Your task to perform on an android device: allow cookies in the chrome app Image 0: 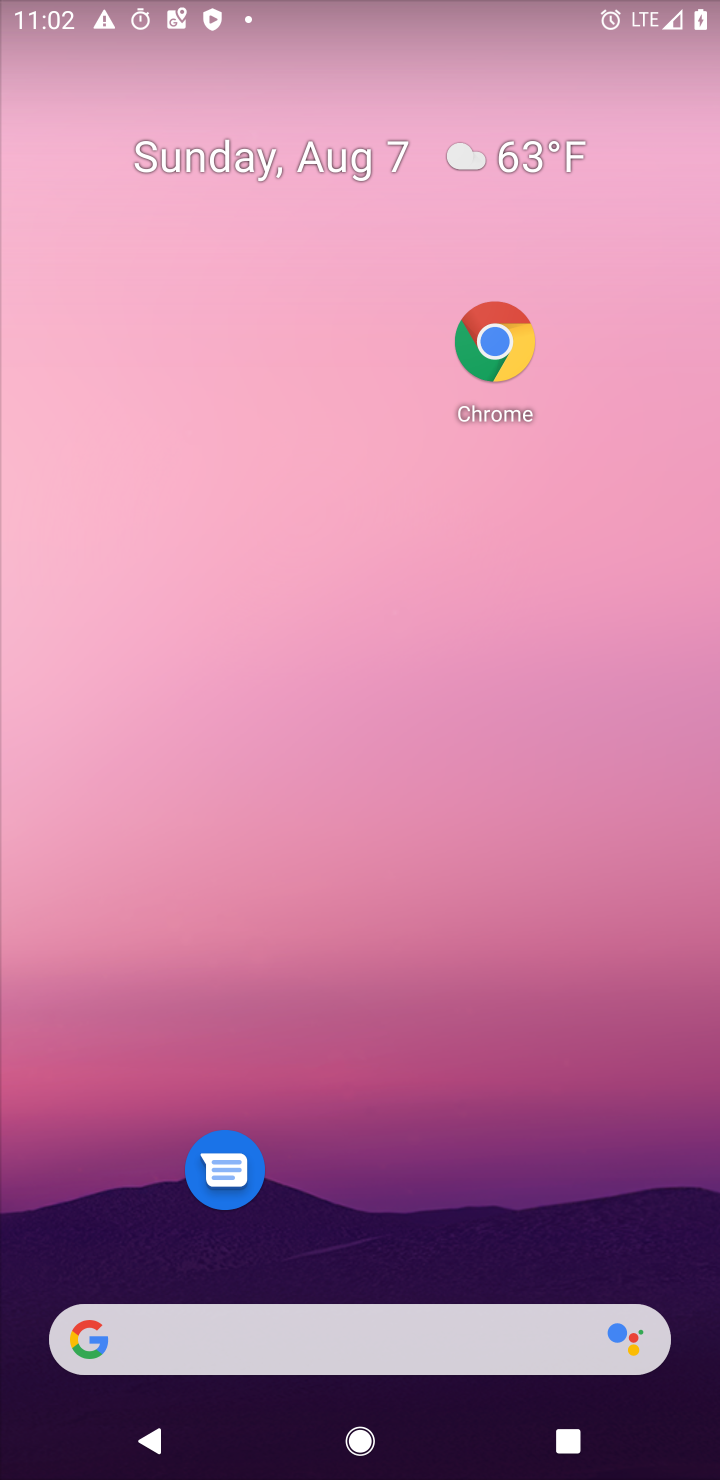
Step 0: drag from (406, 1309) to (403, 10)
Your task to perform on an android device: allow cookies in the chrome app Image 1: 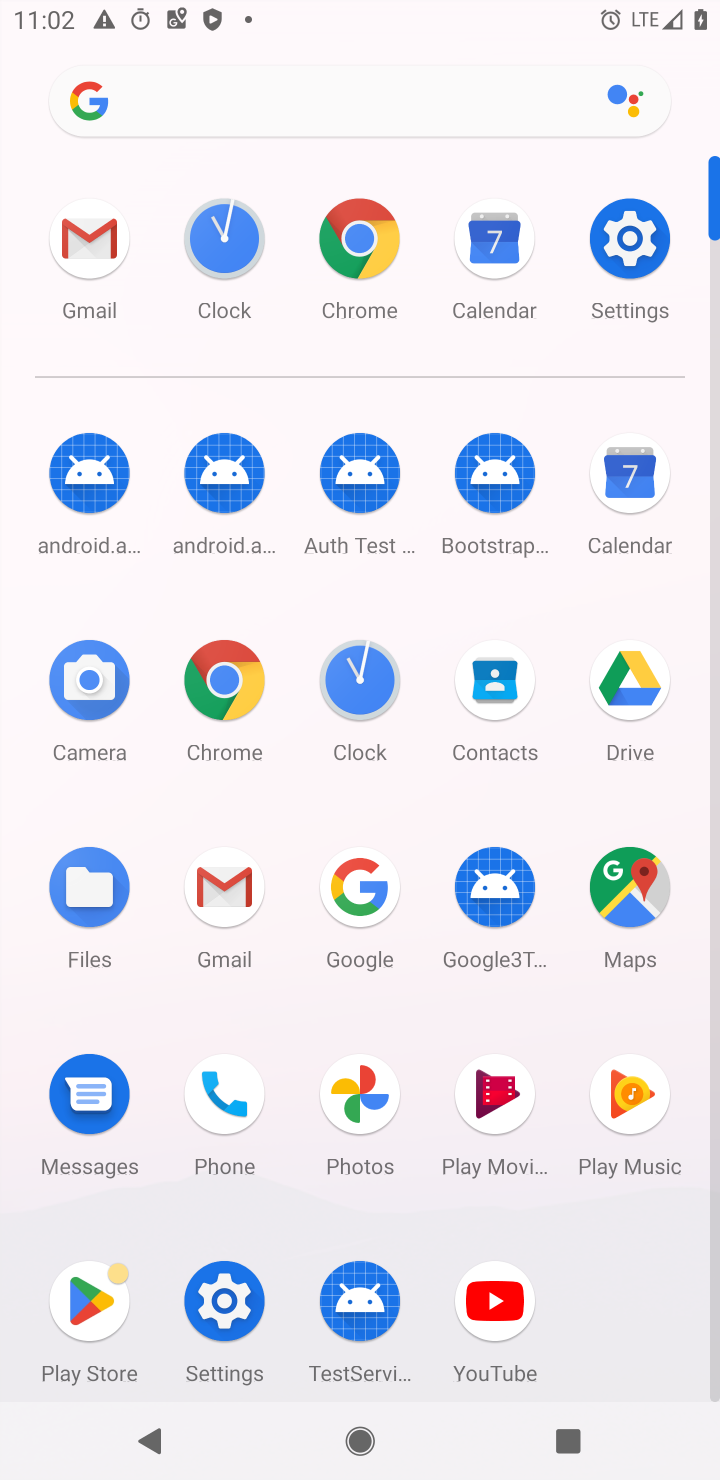
Step 1: click (213, 664)
Your task to perform on an android device: allow cookies in the chrome app Image 2: 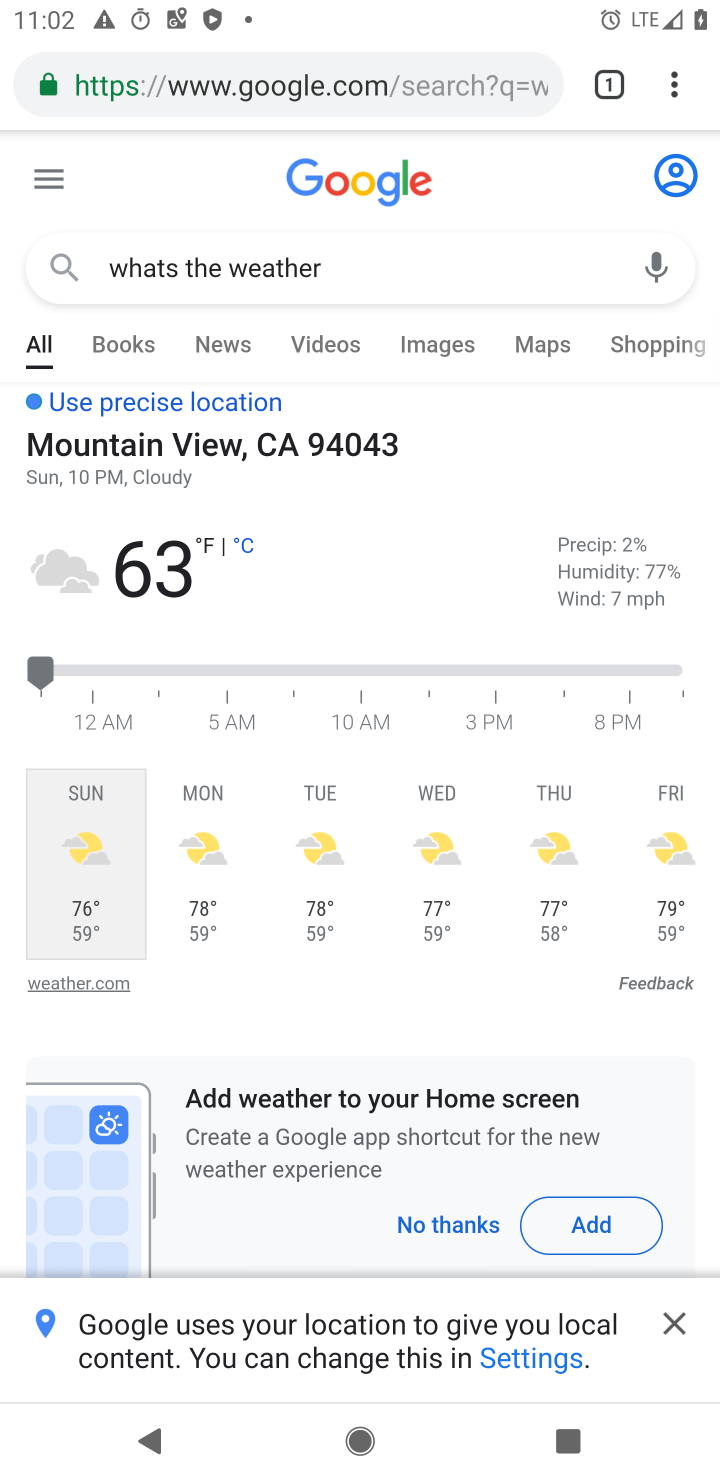
Step 2: click (679, 73)
Your task to perform on an android device: allow cookies in the chrome app Image 3: 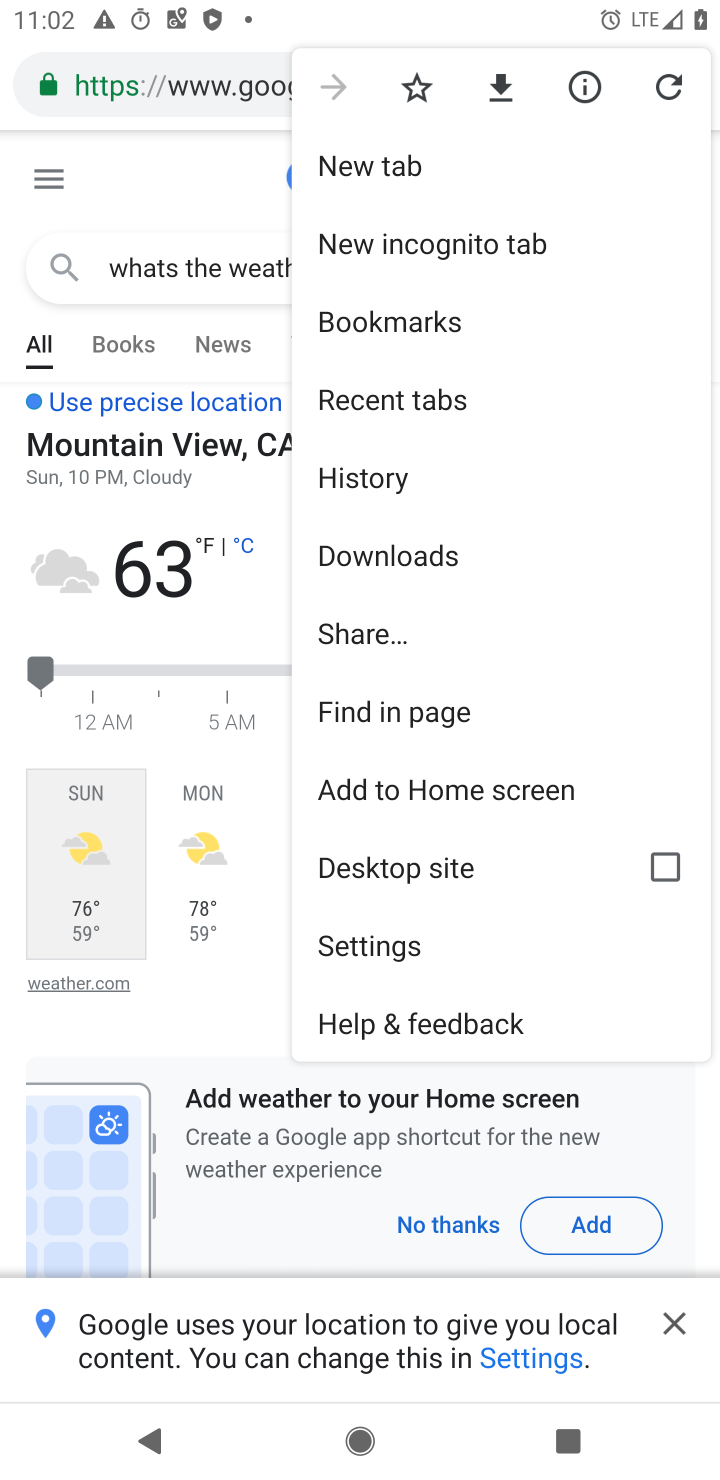
Step 3: click (420, 956)
Your task to perform on an android device: allow cookies in the chrome app Image 4: 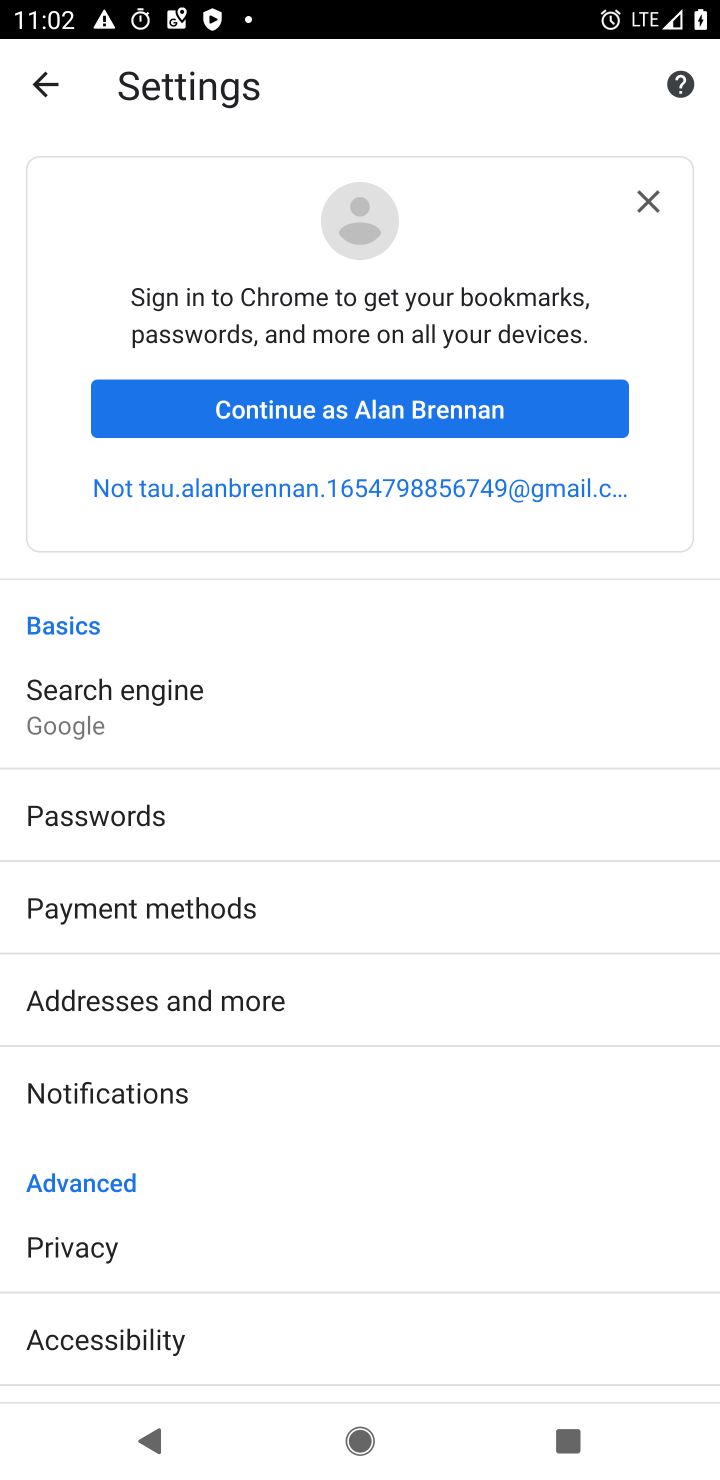
Step 4: drag from (406, 1181) to (427, 434)
Your task to perform on an android device: allow cookies in the chrome app Image 5: 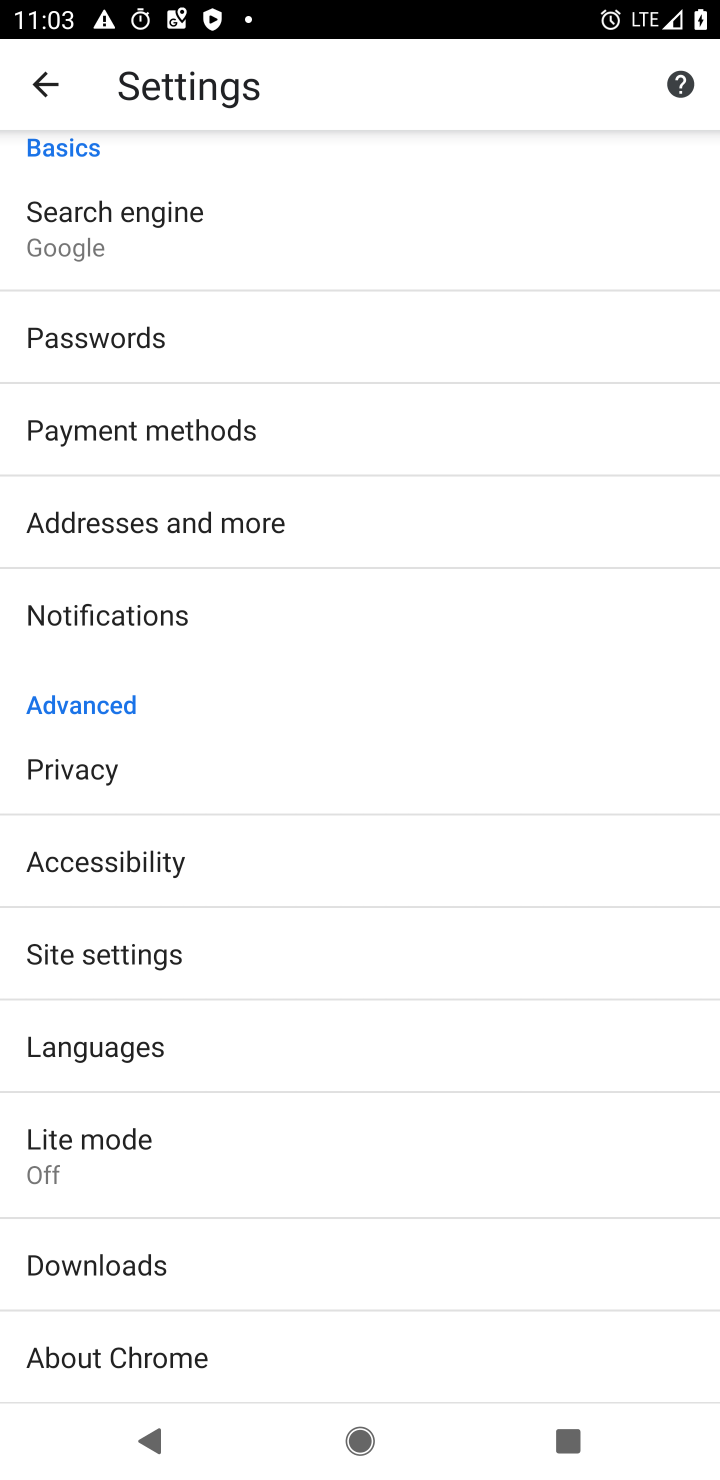
Step 5: click (122, 946)
Your task to perform on an android device: allow cookies in the chrome app Image 6: 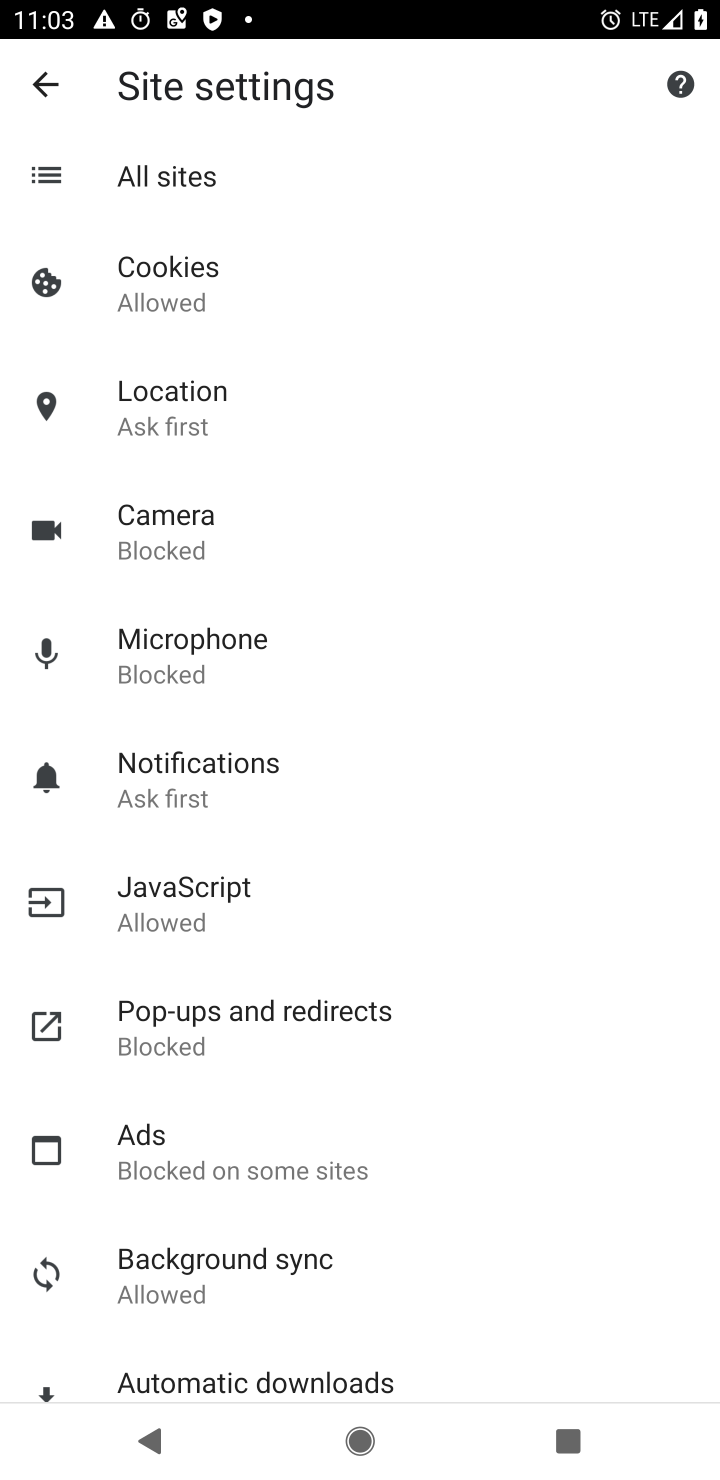
Step 6: click (127, 303)
Your task to perform on an android device: allow cookies in the chrome app Image 7: 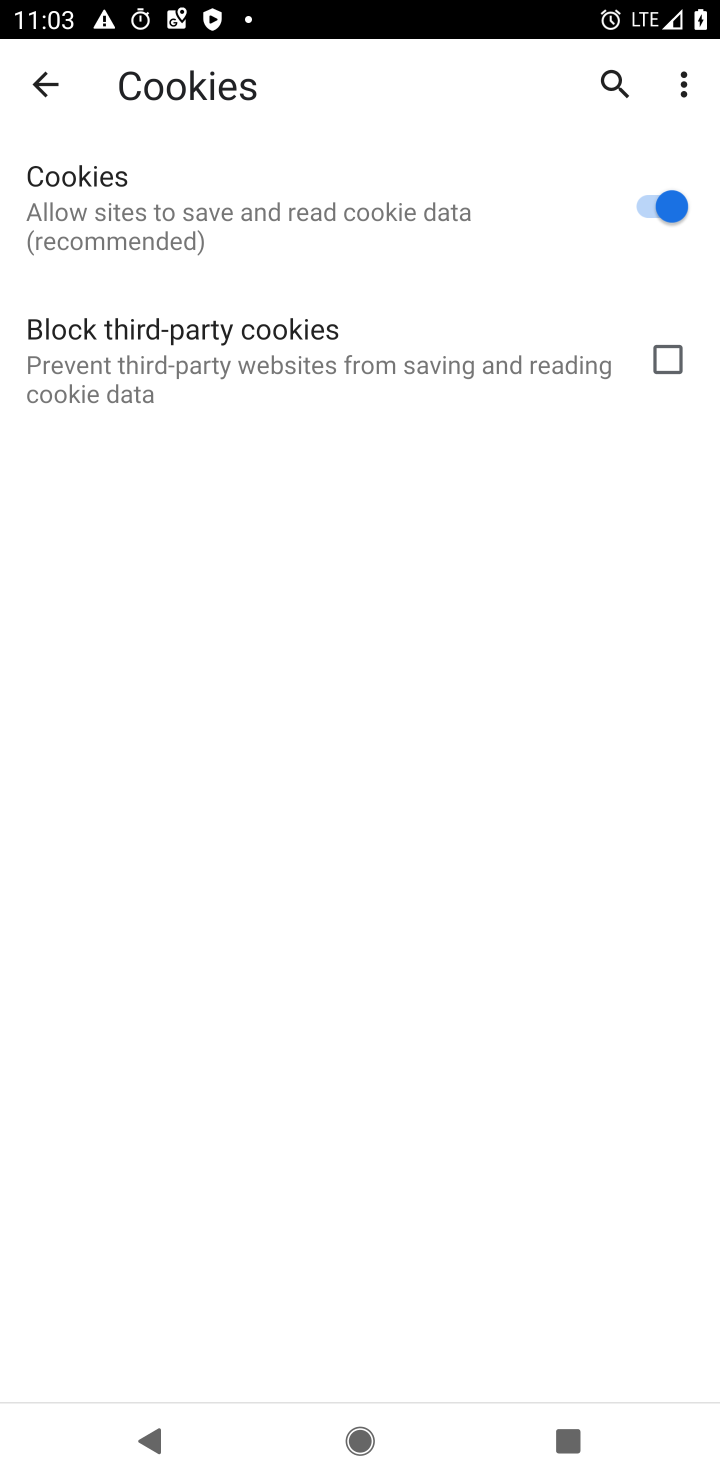
Step 7: task complete